Your task to perform on an android device: What's on my calendar today? Image 0: 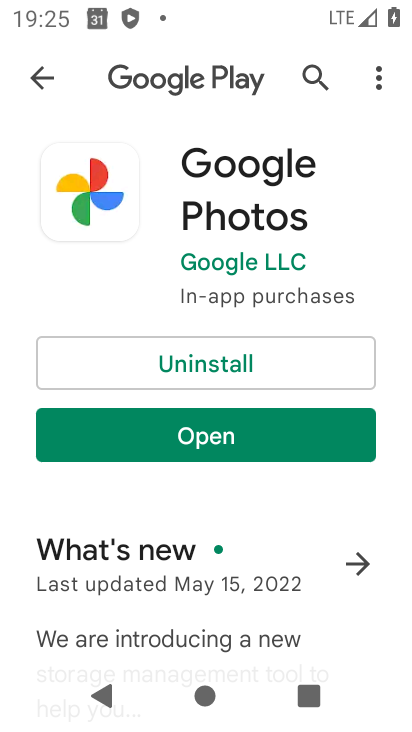
Step 0: press home button
Your task to perform on an android device: What's on my calendar today? Image 1: 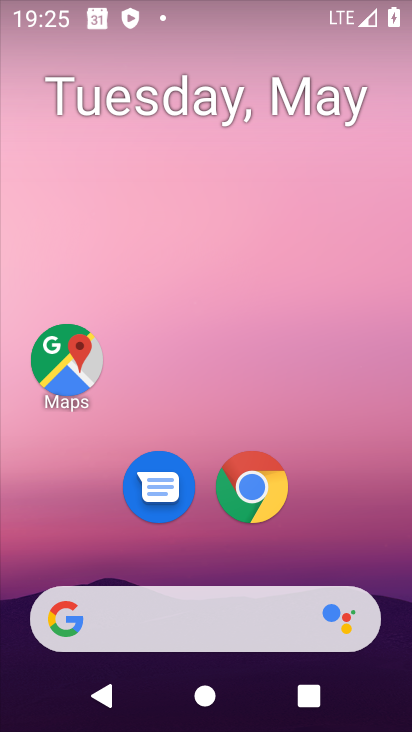
Step 1: drag from (357, 513) to (120, 10)
Your task to perform on an android device: What's on my calendar today? Image 2: 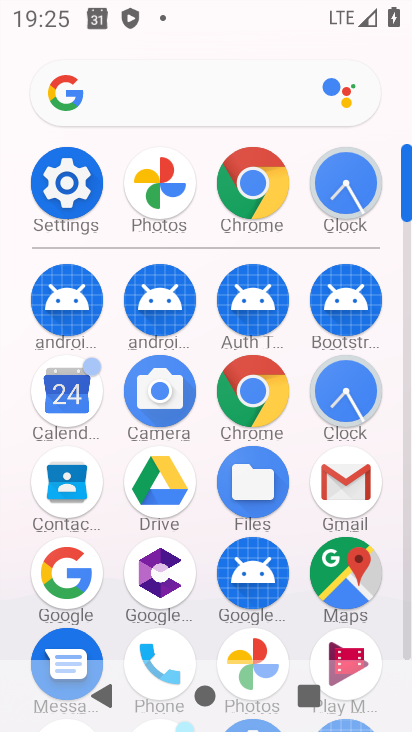
Step 2: click (62, 378)
Your task to perform on an android device: What's on my calendar today? Image 3: 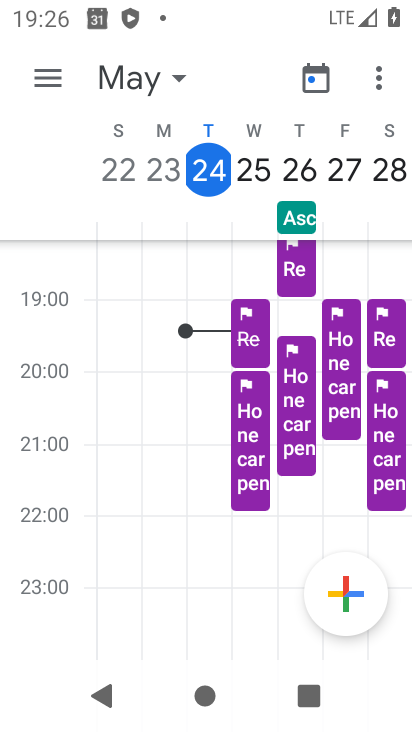
Step 3: click (211, 171)
Your task to perform on an android device: What's on my calendar today? Image 4: 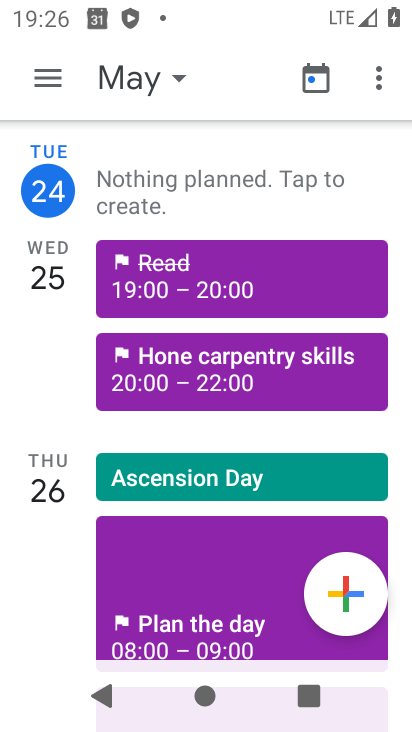
Step 4: click (46, 75)
Your task to perform on an android device: What's on my calendar today? Image 5: 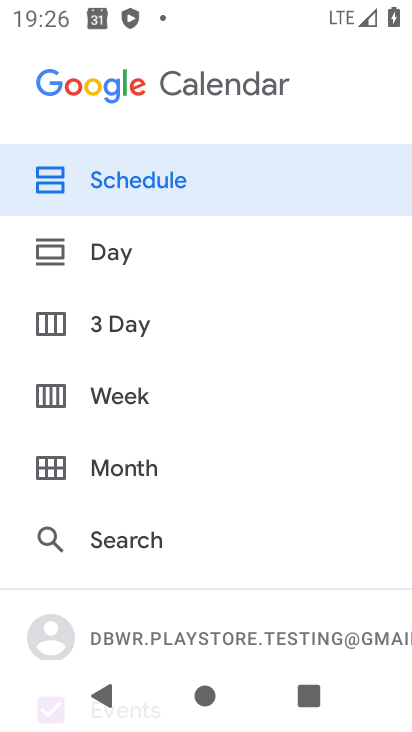
Step 5: click (108, 248)
Your task to perform on an android device: What's on my calendar today? Image 6: 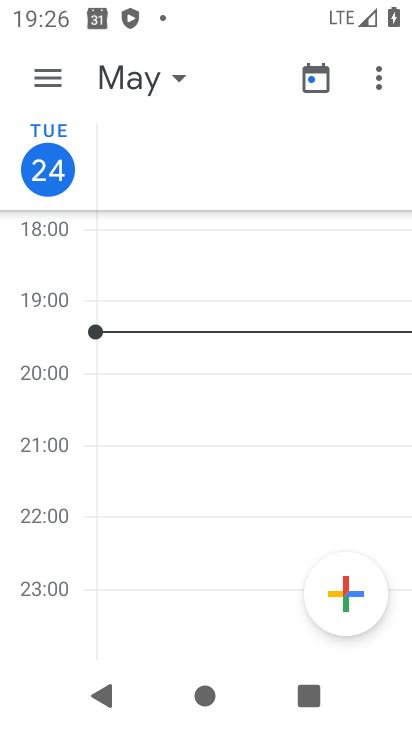
Step 6: task complete